Your task to perform on an android device: Open Google Maps Image 0: 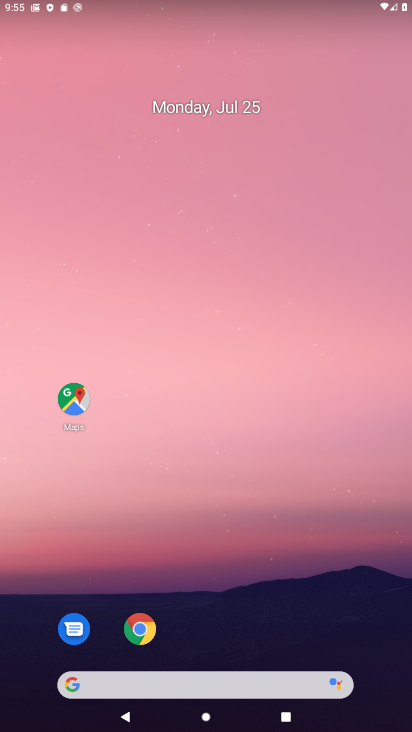
Step 0: click (71, 403)
Your task to perform on an android device: Open Google Maps Image 1: 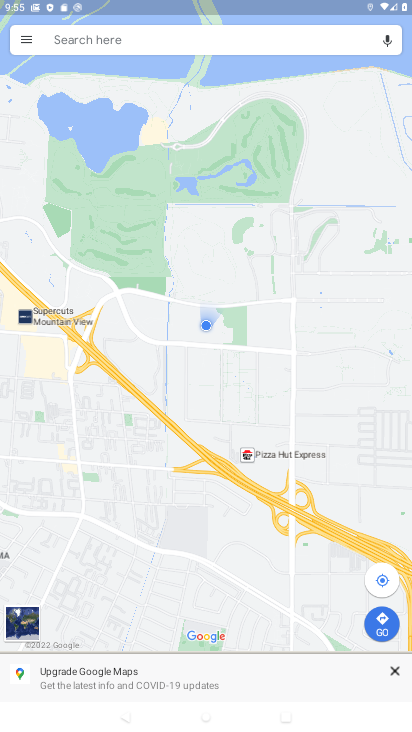
Step 1: task complete